Your task to perform on an android device: turn off smart reply in the gmail app Image 0: 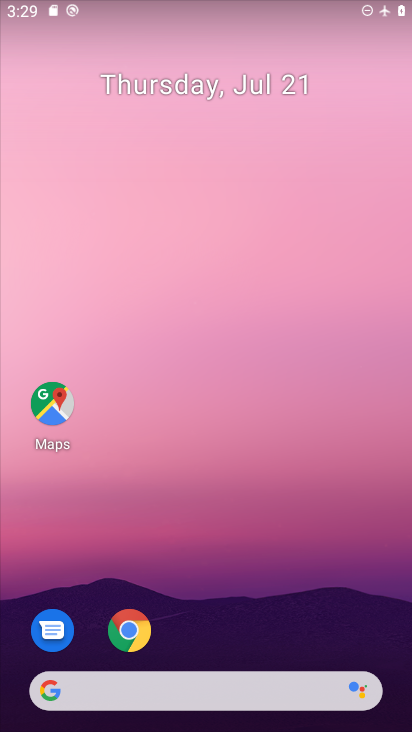
Step 0: drag from (200, 627) to (222, 7)
Your task to perform on an android device: turn off smart reply in the gmail app Image 1: 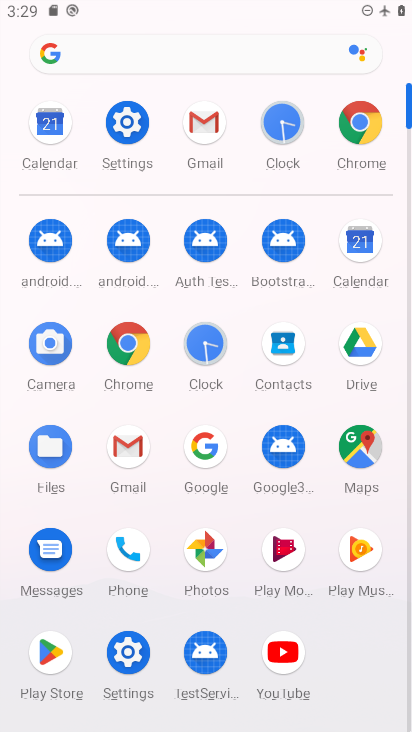
Step 1: click (207, 117)
Your task to perform on an android device: turn off smart reply in the gmail app Image 2: 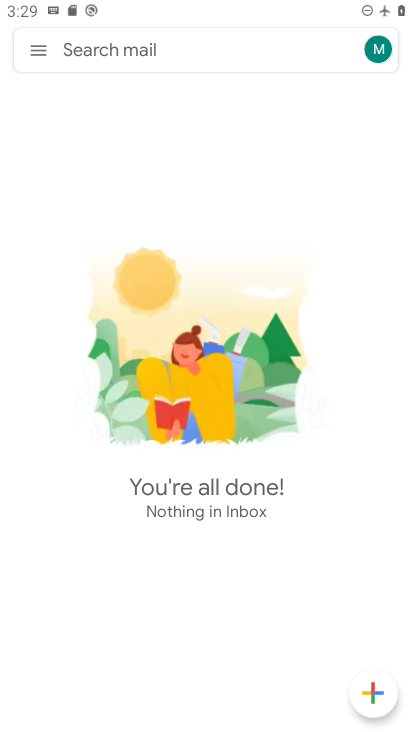
Step 2: click (41, 53)
Your task to perform on an android device: turn off smart reply in the gmail app Image 3: 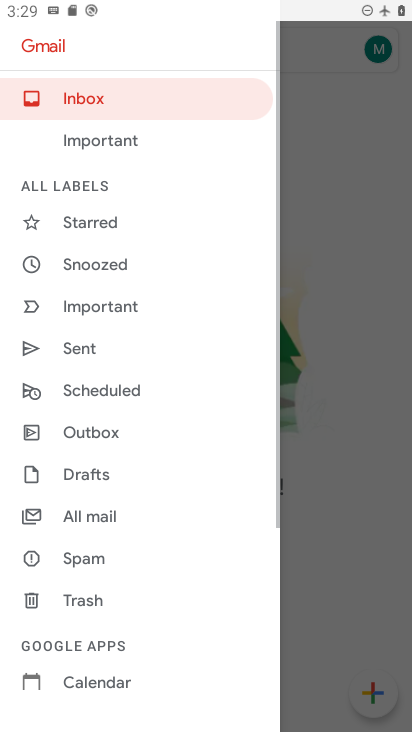
Step 3: drag from (94, 656) to (163, 13)
Your task to perform on an android device: turn off smart reply in the gmail app Image 4: 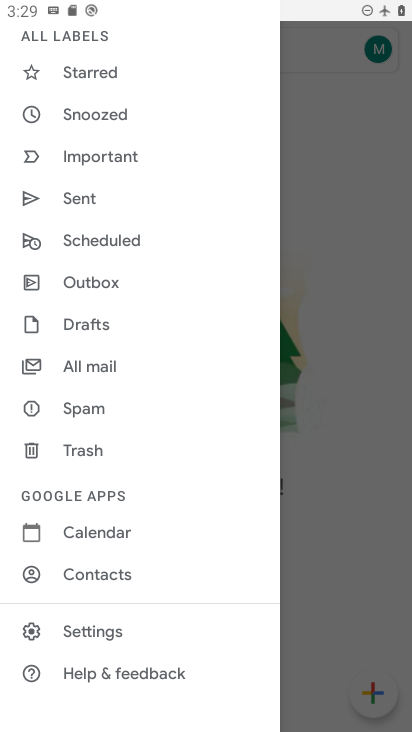
Step 4: click (76, 632)
Your task to perform on an android device: turn off smart reply in the gmail app Image 5: 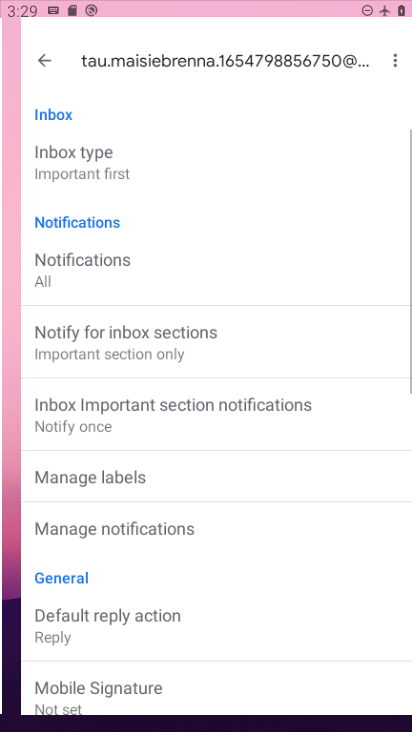
Step 5: drag from (149, 653) to (250, 34)
Your task to perform on an android device: turn off smart reply in the gmail app Image 6: 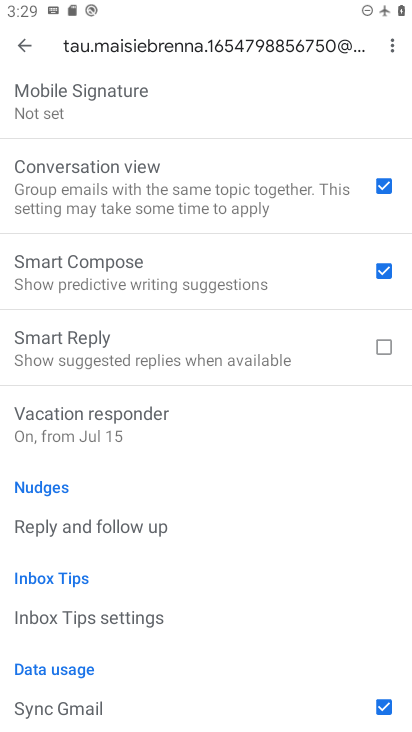
Step 6: click (386, 343)
Your task to perform on an android device: turn off smart reply in the gmail app Image 7: 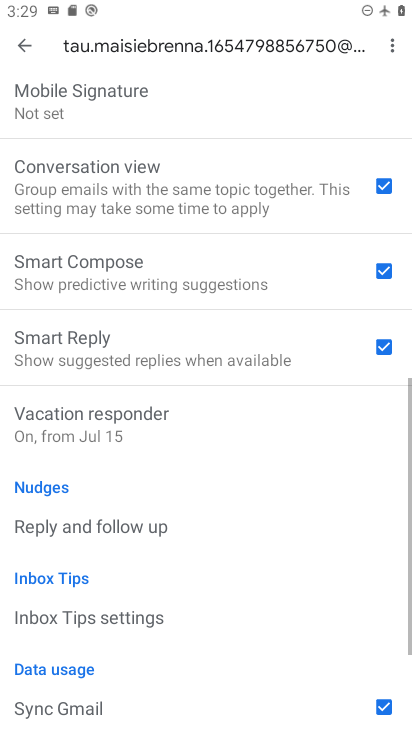
Step 7: click (386, 343)
Your task to perform on an android device: turn off smart reply in the gmail app Image 8: 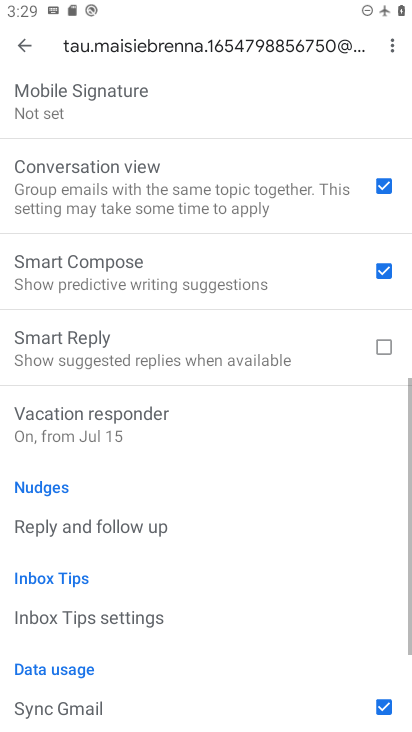
Step 8: task complete